Your task to perform on an android device: Is it going to rain tomorrow? Image 0: 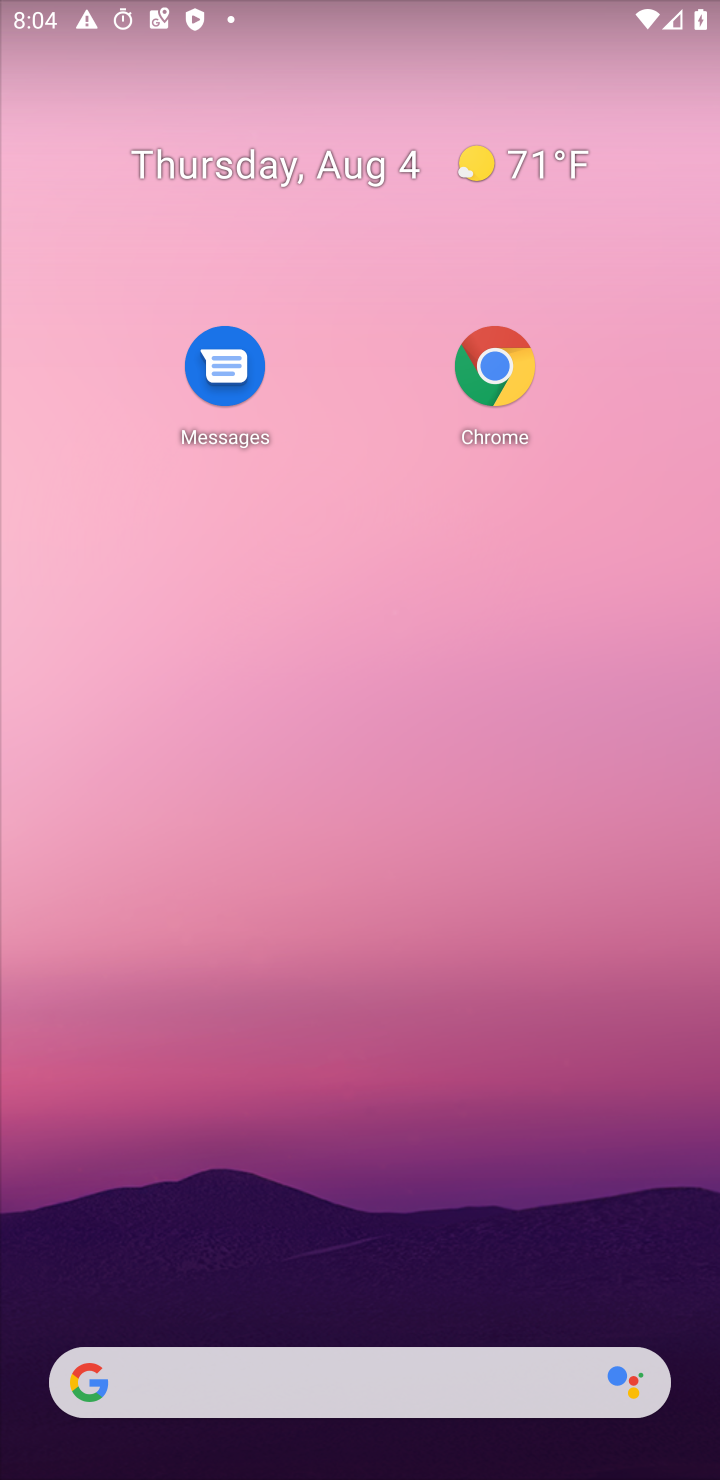
Step 0: press home button
Your task to perform on an android device: Is it going to rain tomorrow? Image 1: 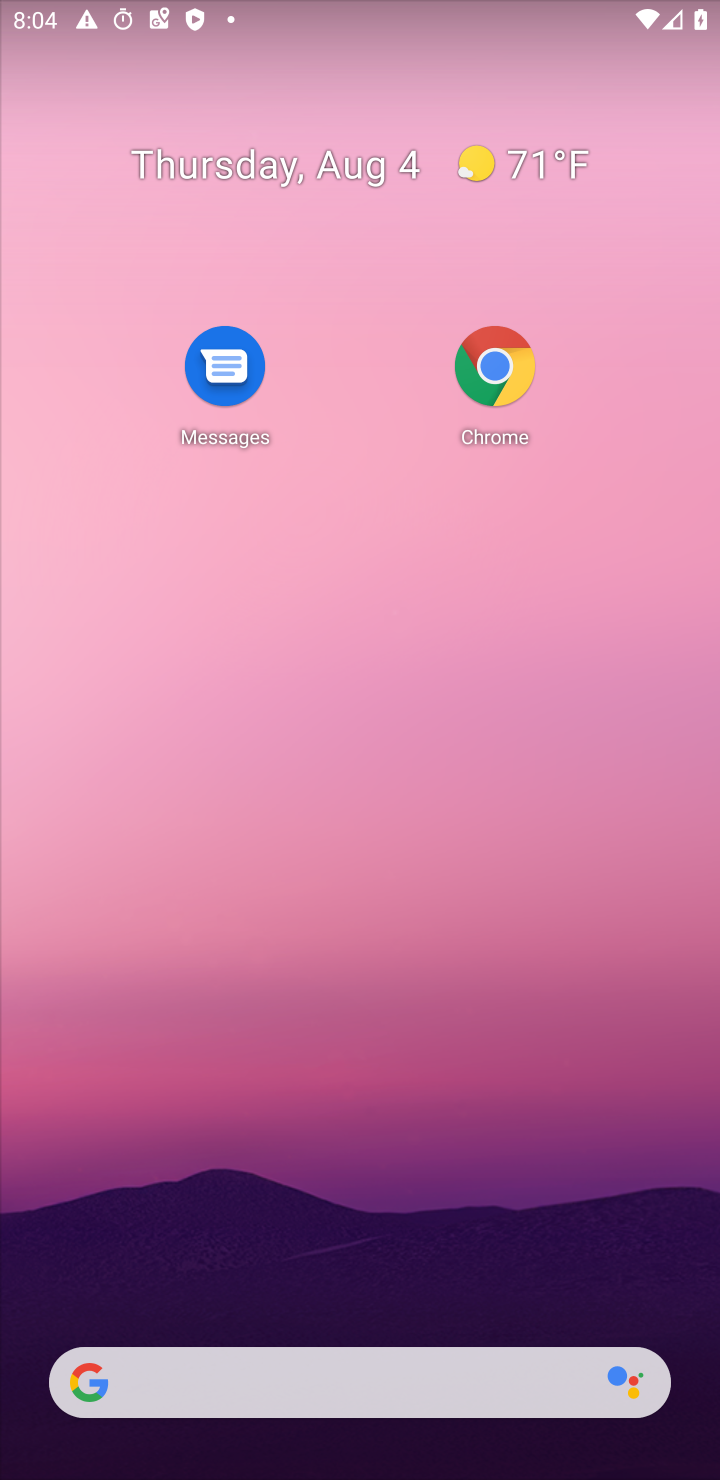
Step 1: drag from (407, 1401) to (259, 364)
Your task to perform on an android device: Is it going to rain tomorrow? Image 2: 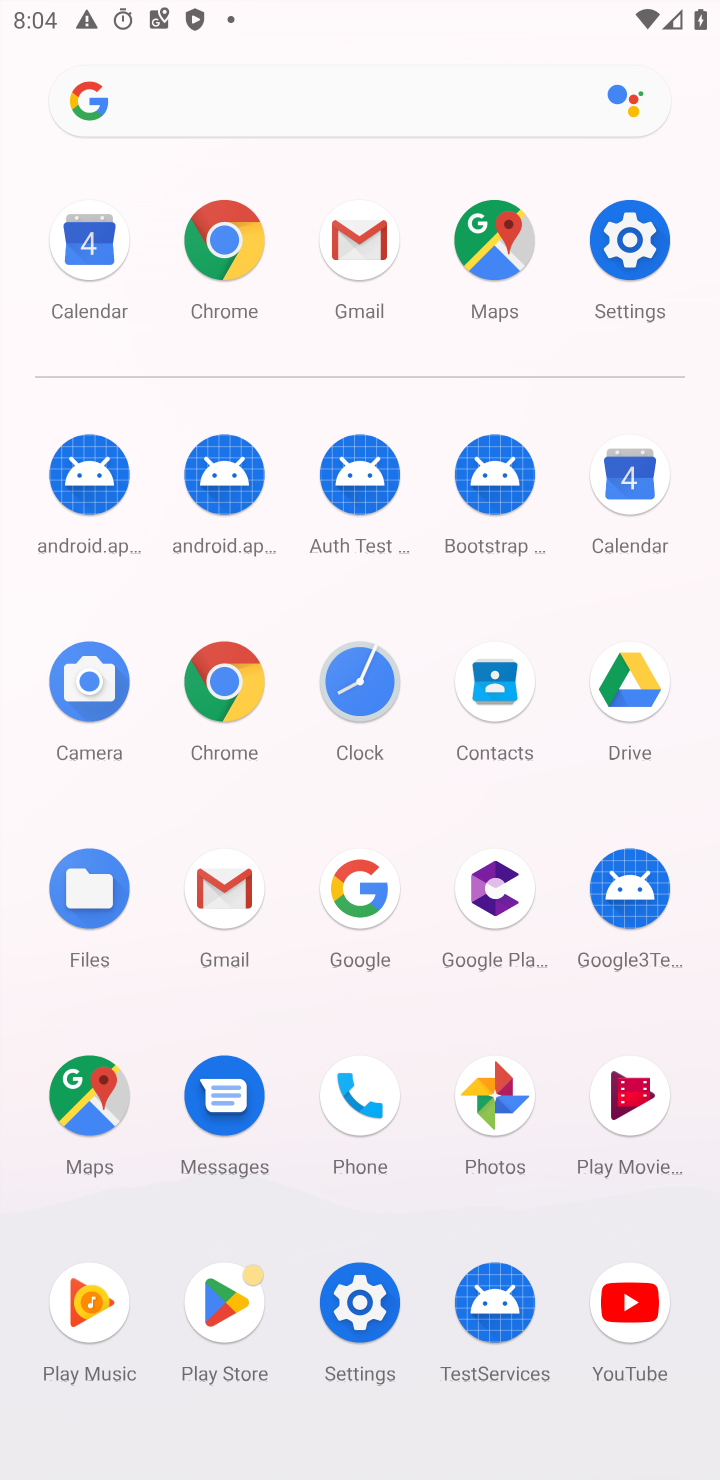
Step 2: click (614, 494)
Your task to perform on an android device: Is it going to rain tomorrow? Image 3: 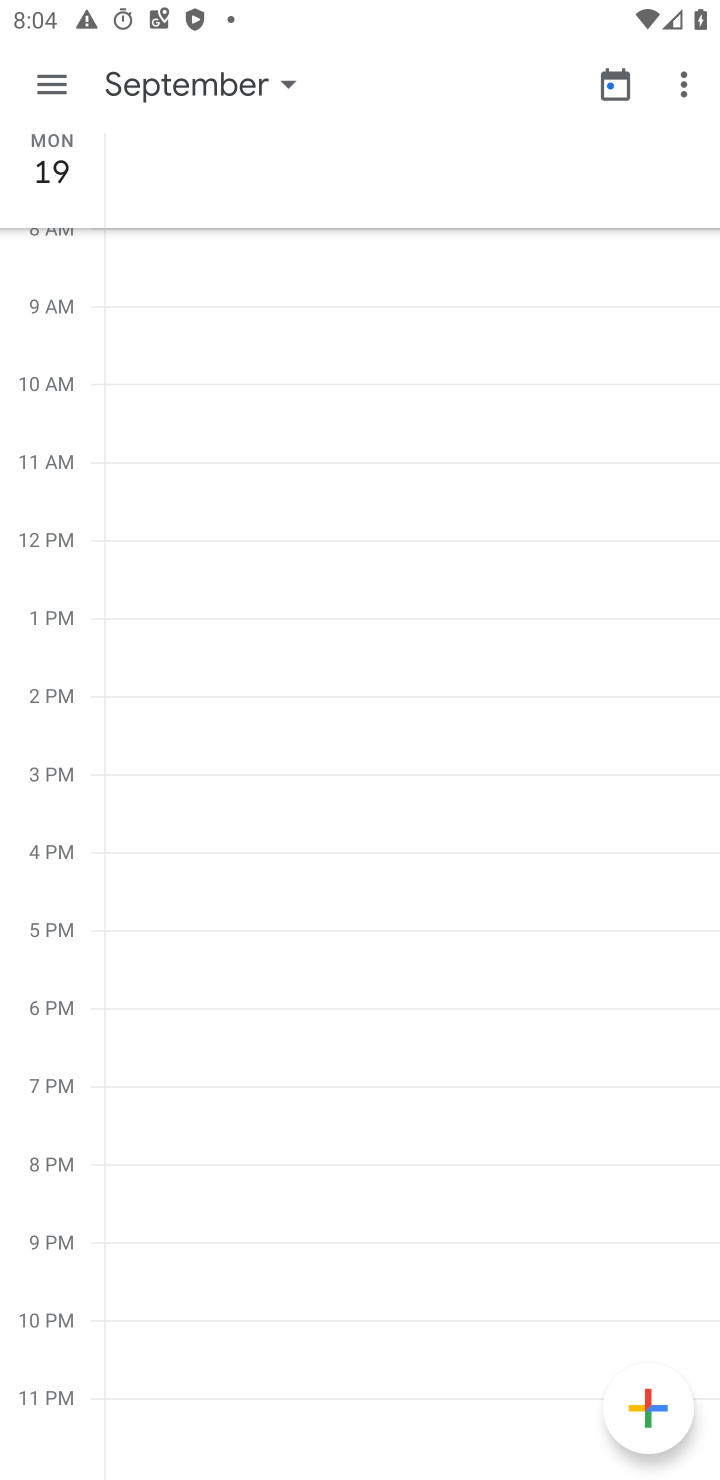
Step 3: click (46, 81)
Your task to perform on an android device: Is it going to rain tomorrow? Image 4: 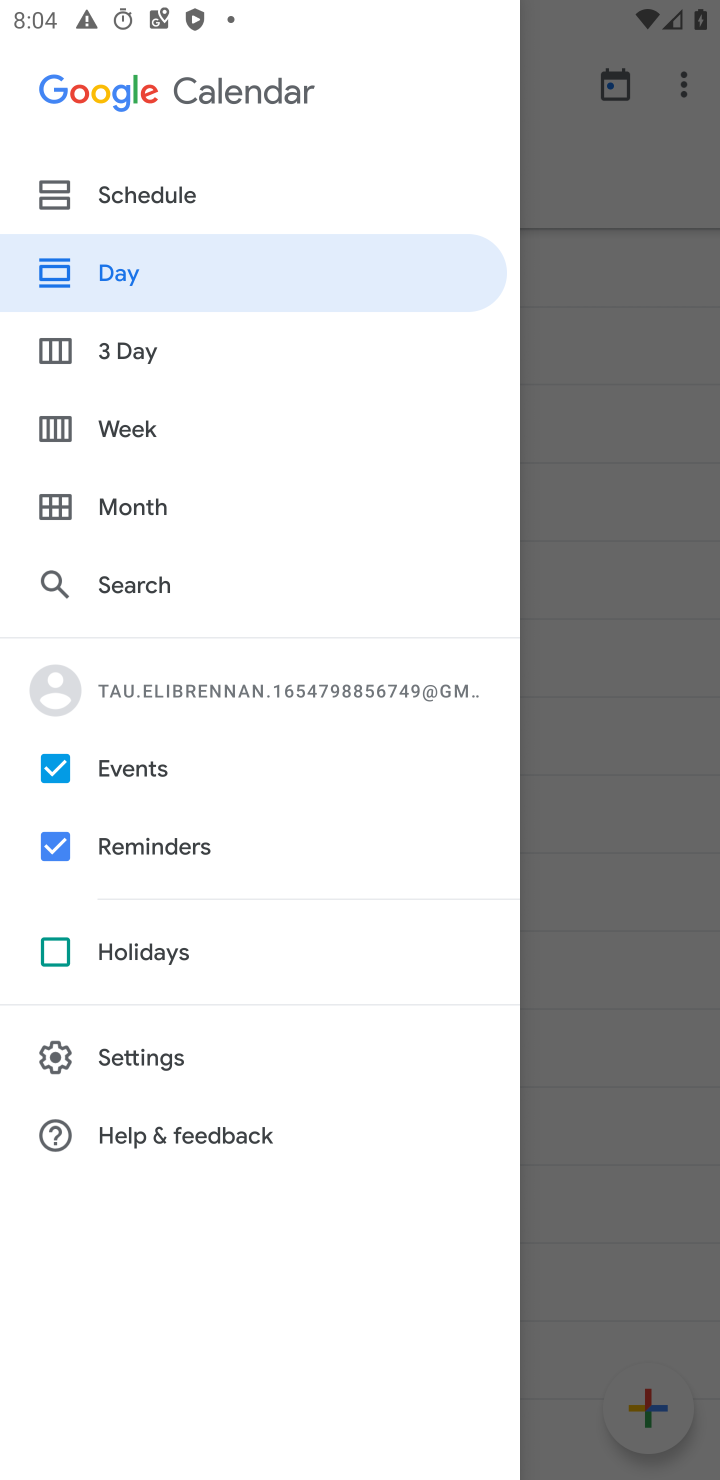
Step 4: press home button
Your task to perform on an android device: Is it going to rain tomorrow? Image 5: 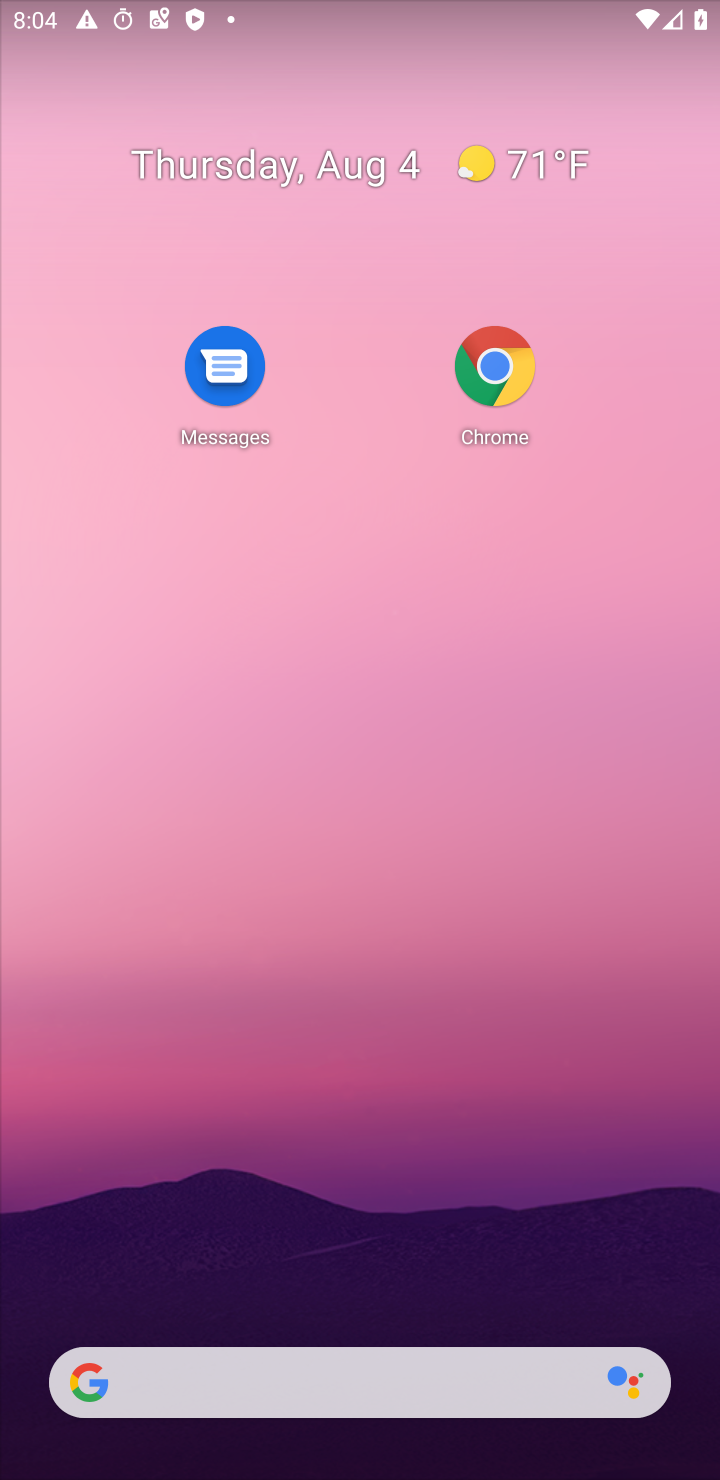
Step 5: click (325, 1372)
Your task to perform on an android device: Is it going to rain tomorrow? Image 6: 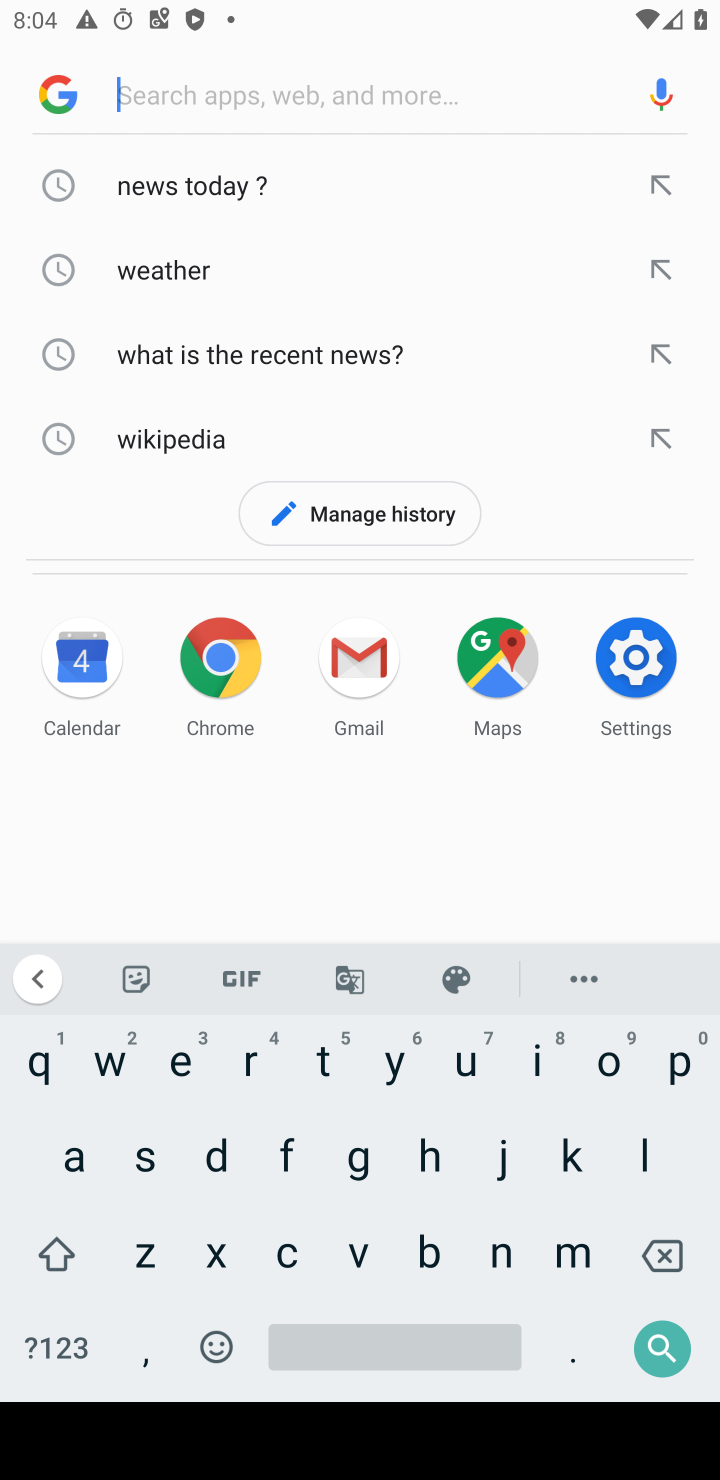
Step 6: click (536, 1067)
Your task to perform on an android device: Is it going to rain tomorrow? Image 7: 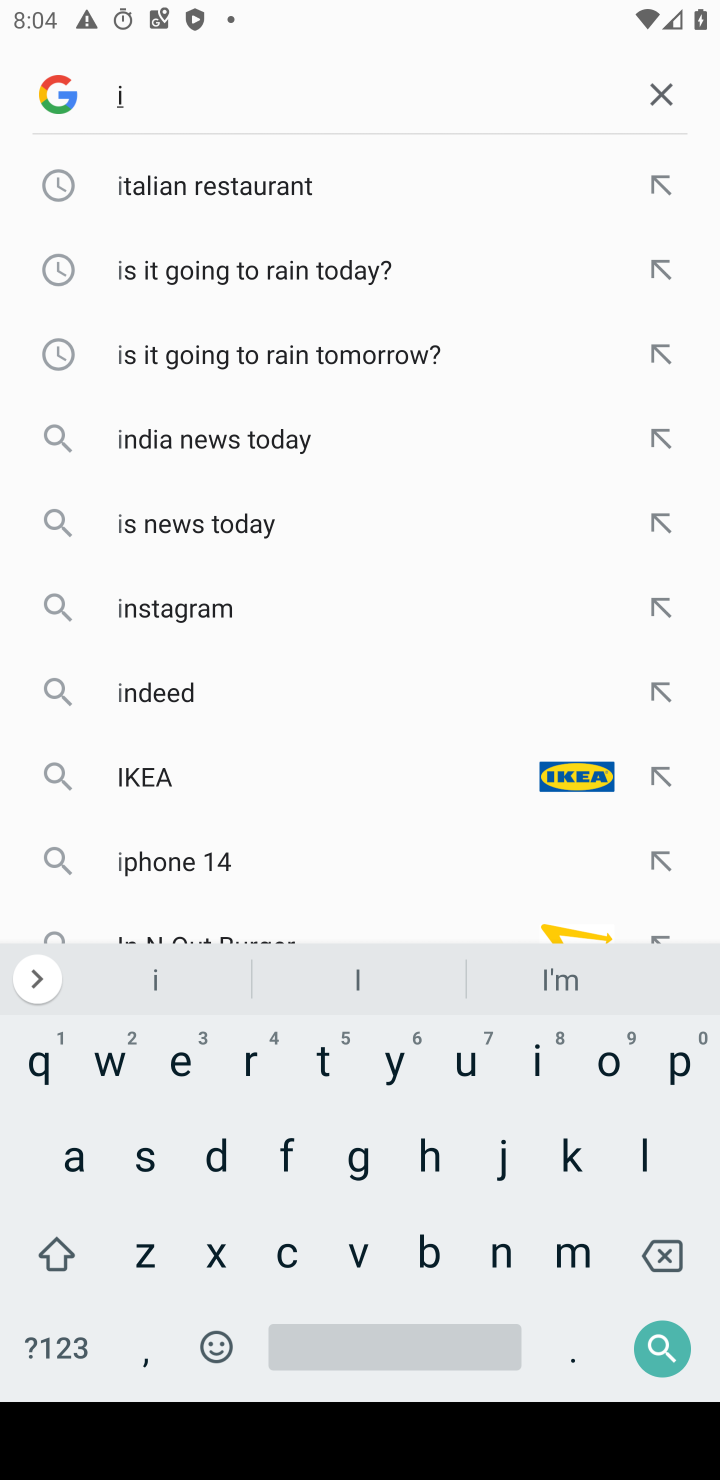
Step 7: click (148, 1156)
Your task to perform on an android device: Is it going to rain tomorrow? Image 8: 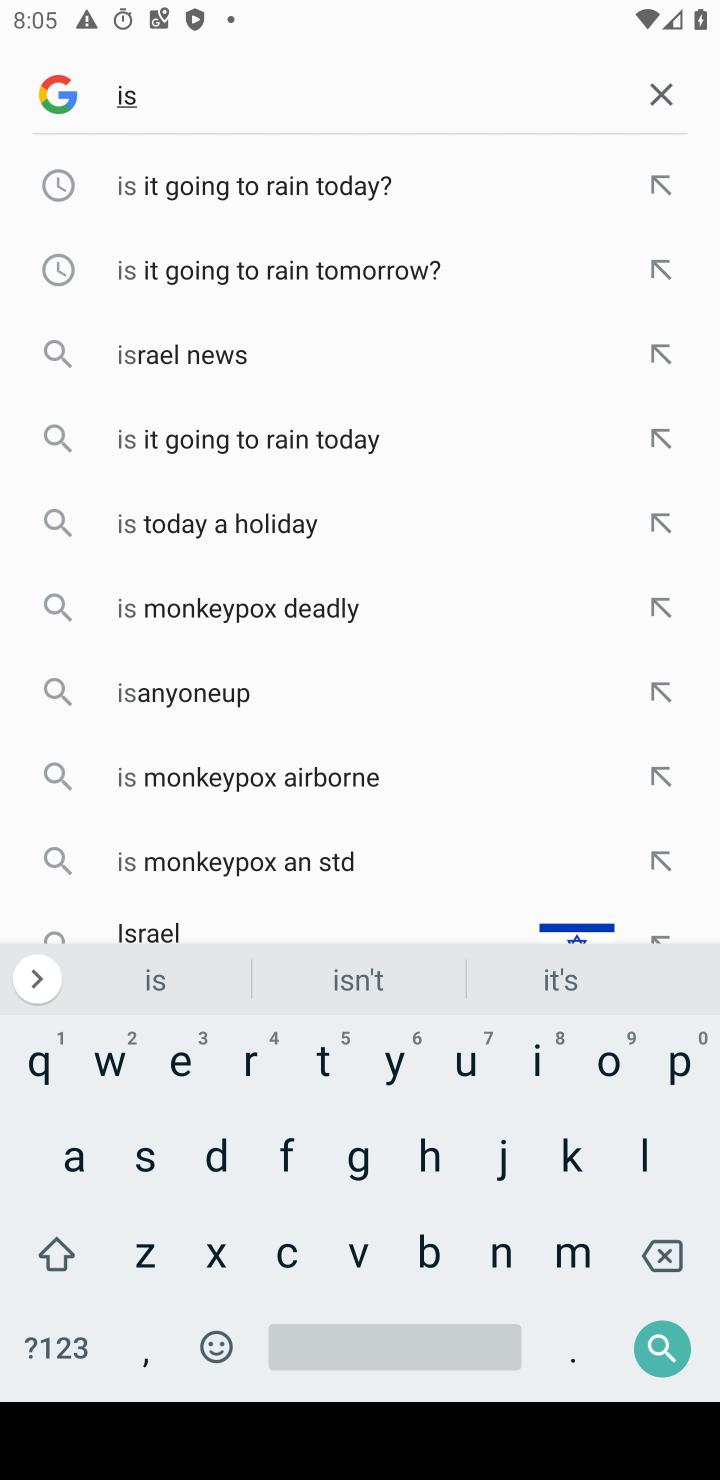
Step 8: click (262, 273)
Your task to perform on an android device: Is it going to rain tomorrow? Image 9: 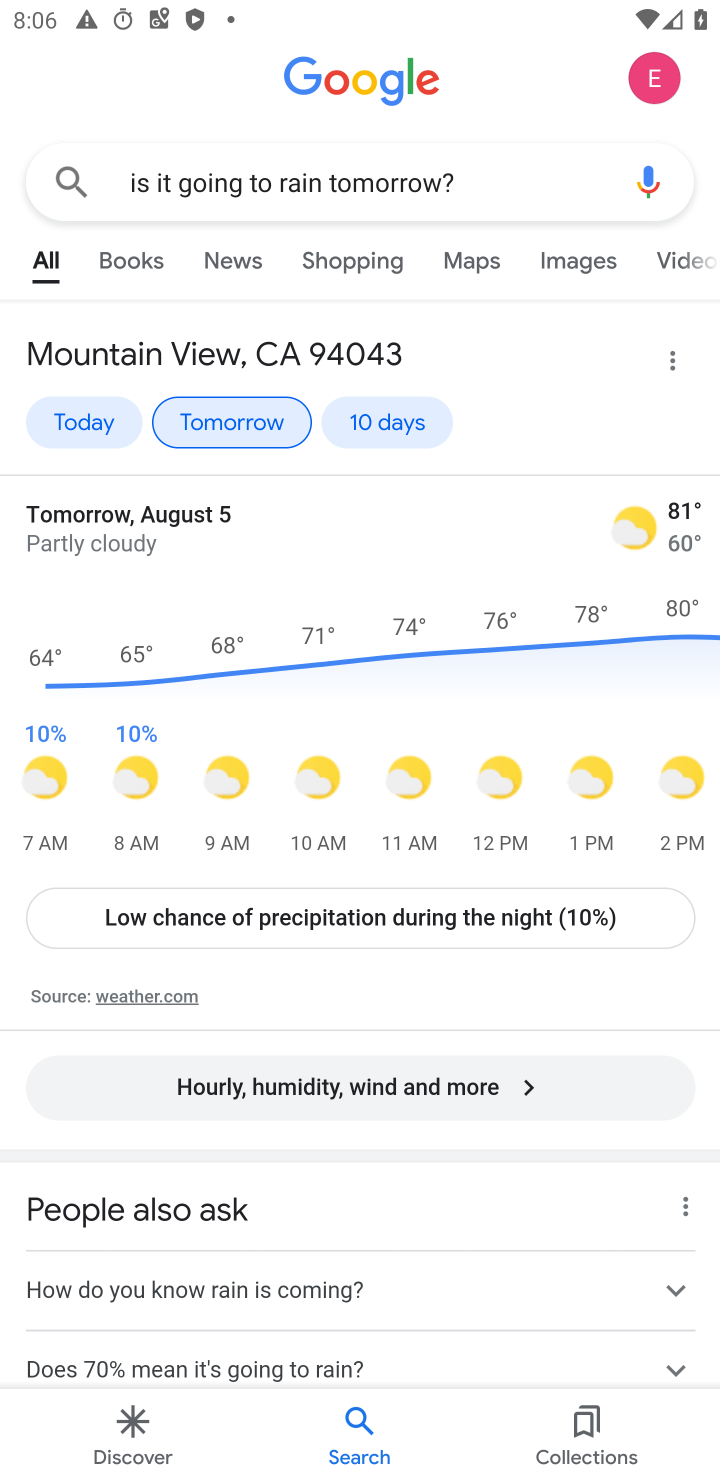
Step 9: task complete